Your task to perform on an android device: empty trash in the gmail app Image 0: 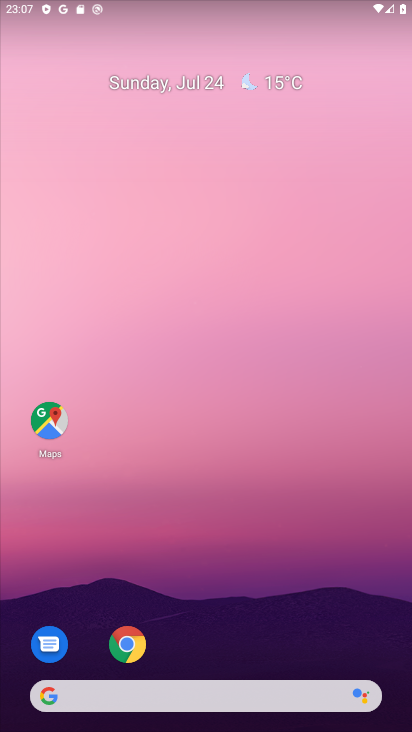
Step 0: drag from (209, 726) to (209, 119)
Your task to perform on an android device: empty trash in the gmail app Image 1: 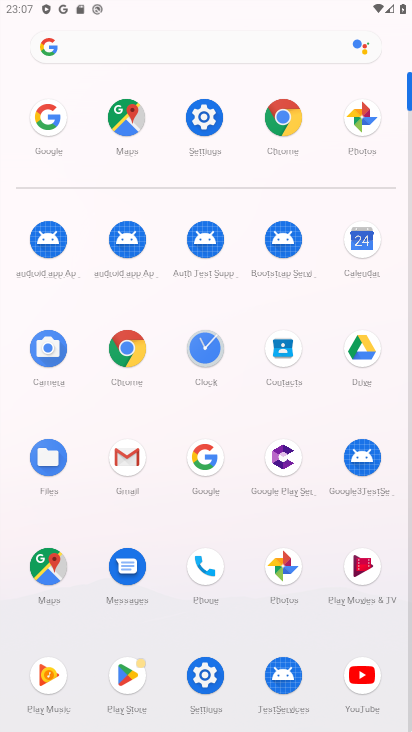
Step 1: click (131, 448)
Your task to perform on an android device: empty trash in the gmail app Image 2: 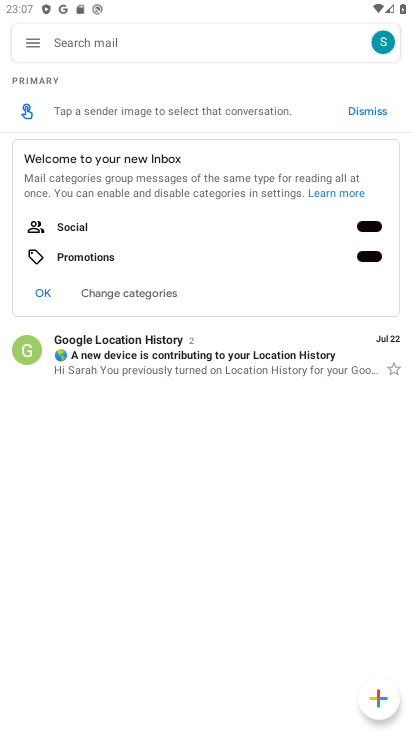
Step 2: click (27, 37)
Your task to perform on an android device: empty trash in the gmail app Image 3: 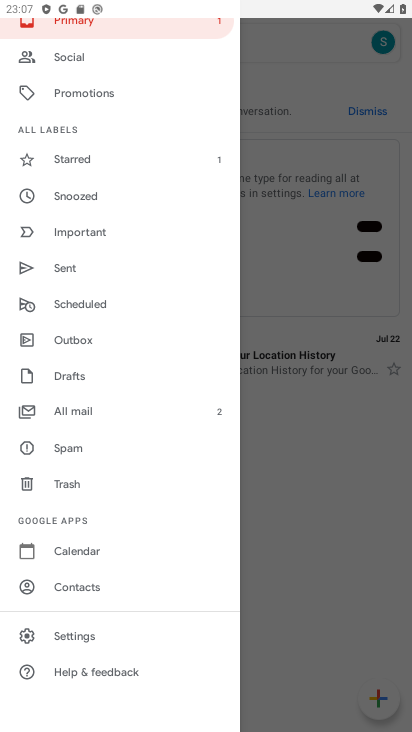
Step 3: click (66, 481)
Your task to perform on an android device: empty trash in the gmail app Image 4: 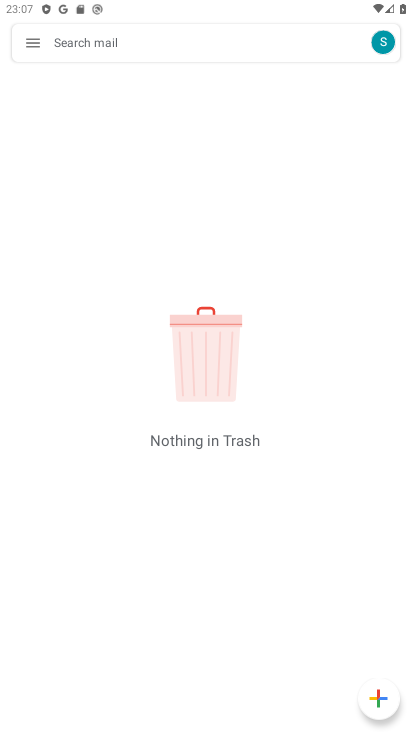
Step 4: task complete